Your task to perform on an android device: Toggle the flashlight Image 0: 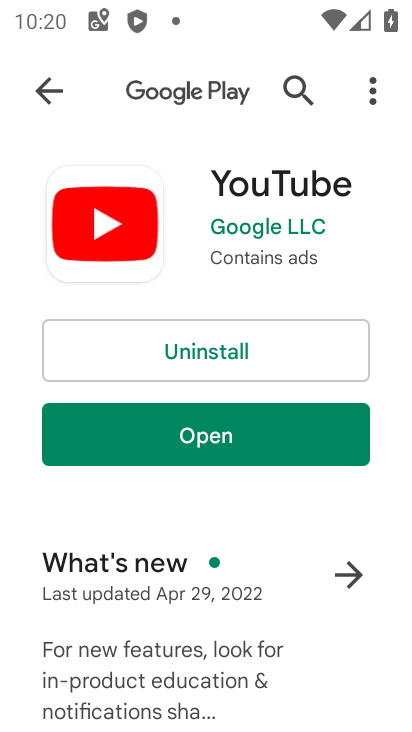
Step 0: press home button
Your task to perform on an android device: Toggle the flashlight Image 1: 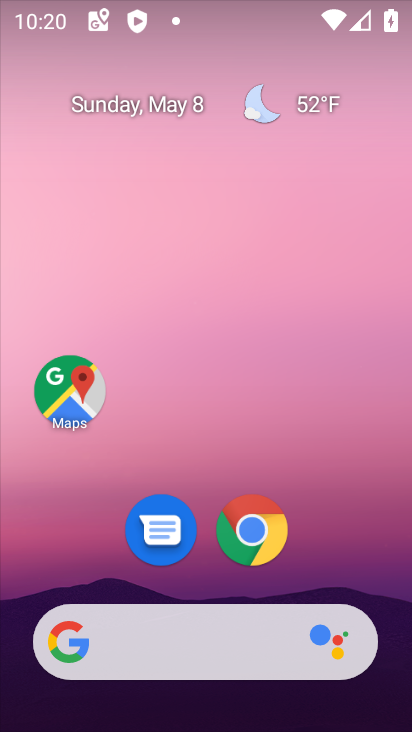
Step 1: drag from (359, 573) to (317, 165)
Your task to perform on an android device: Toggle the flashlight Image 2: 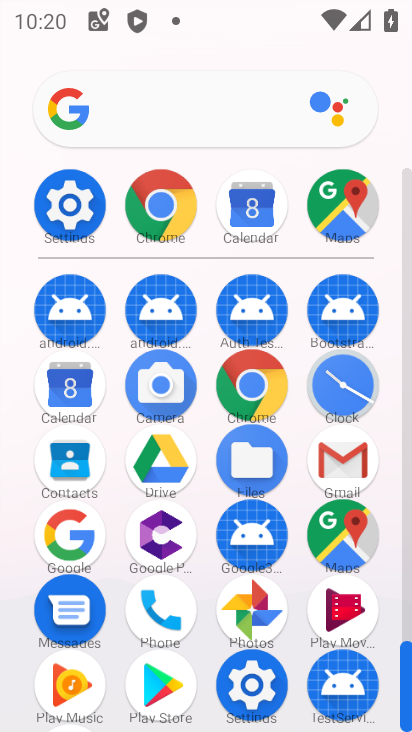
Step 2: click (68, 219)
Your task to perform on an android device: Toggle the flashlight Image 3: 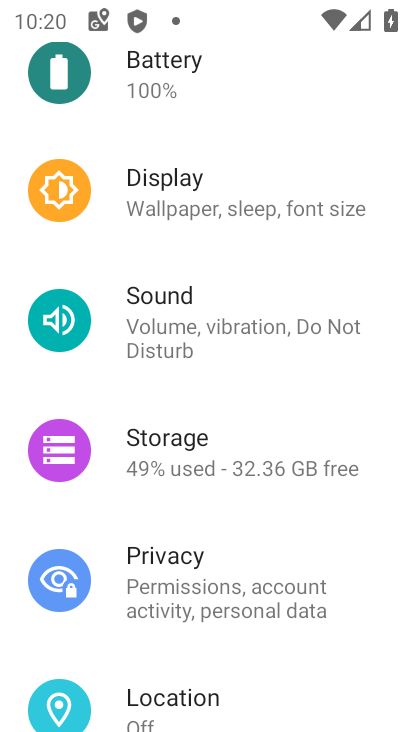
Step 3: drag from (303, 125) to (359, 546)
Your task to perform on an android device: Toggle the flashlight Image 4: 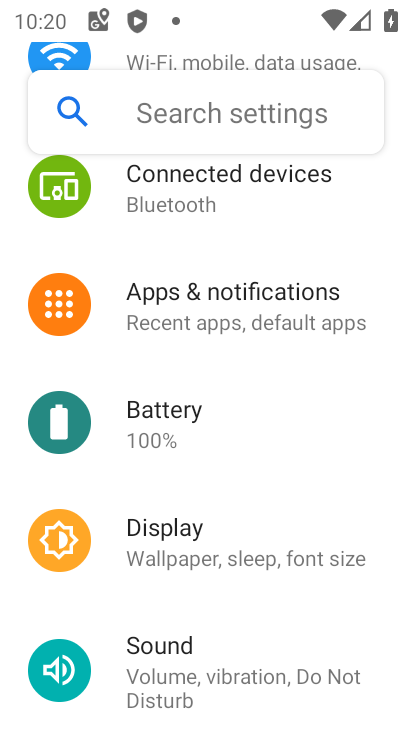
Step 4: click (269, 108)
Your task to perform on an android device: Toggle the flashlight Image 5: 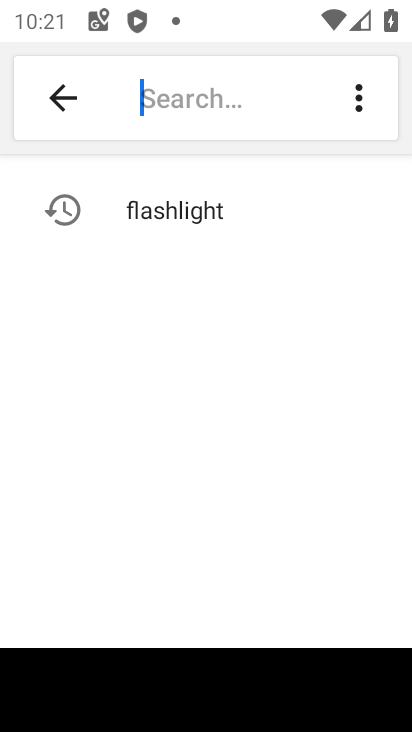
Step 5: click (184, 199)
Your task to perform on an android device: Toggle the flashlight Image 6: 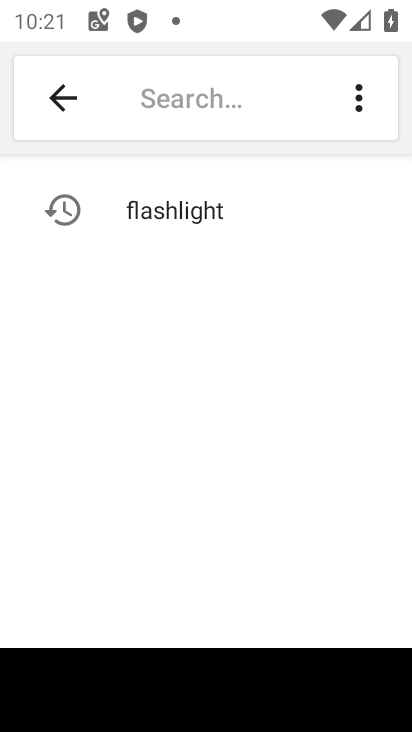
Step 6: type "fl"
Your task to perform on an android device: Toggle the flashlight Image 7: 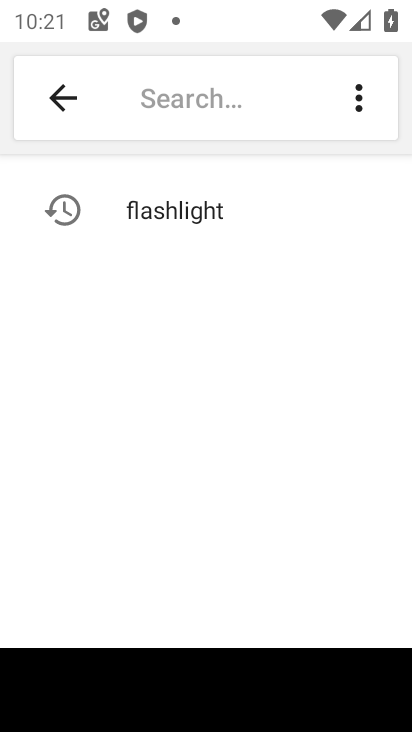
Step 7: click (184, 199)
Your task to perform on an android device: Toggle the flashlight Image 8: 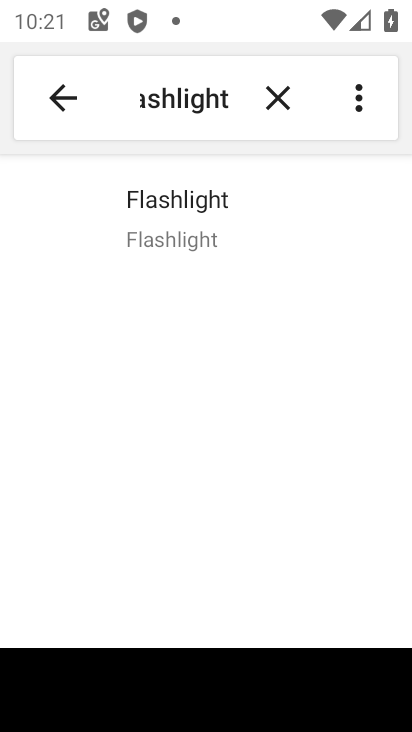
Step 8: click (184, 227)
Your task to perform on an android device: Toggle the flashlight Image 9: 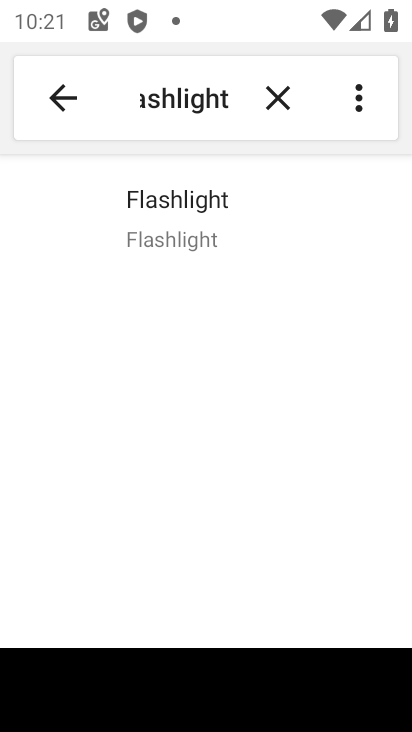
Step 9: click (195, 225)
Your task to perform on an android device: Toggle the flashlight Image 10: 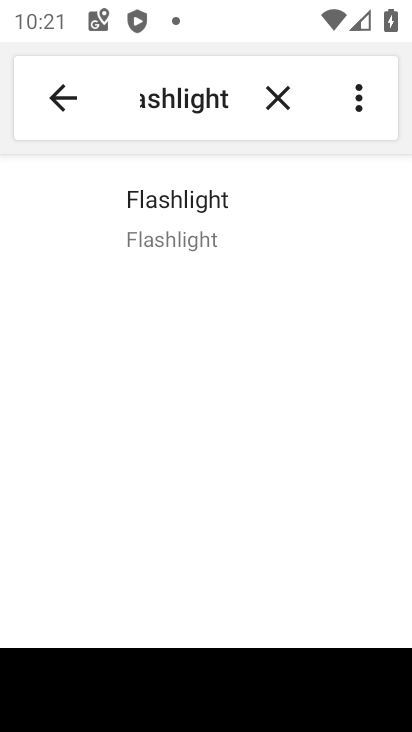
Step 10: task complete